Your task to perform on an android device: Open settings Image 0: 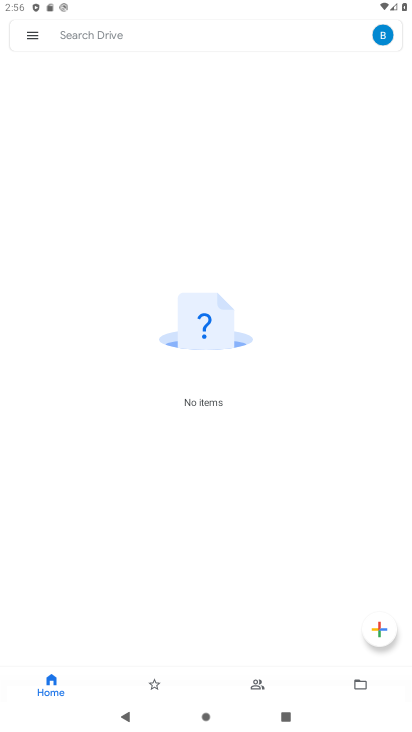
Step 0: press home button
Your task to perform on an android device: Open settings Image 1: 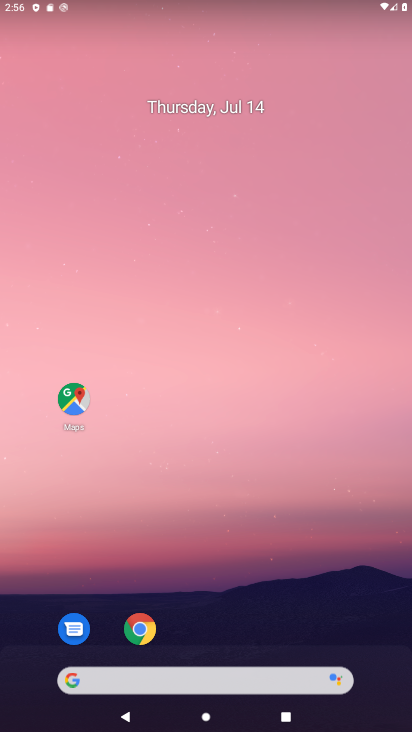
Step 1: drag from (331, 601) to (338, 48)
Your task to perform on an android device: Open settings Image 2: 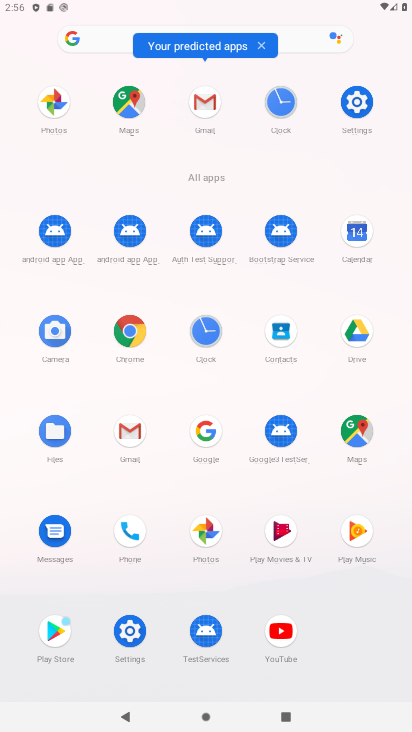
Step 2: click (361, 109)
Your task to perform on an android device: Open settings Image 3: 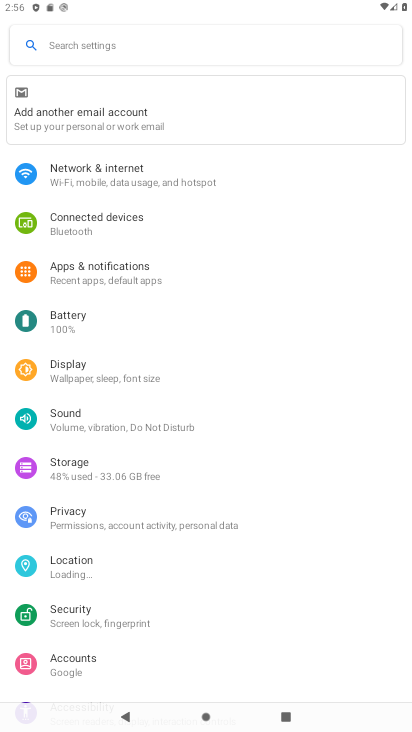
Step 3: task complete